Your task to perform on an android device: What's on my calendar tomorrow? Image 0: 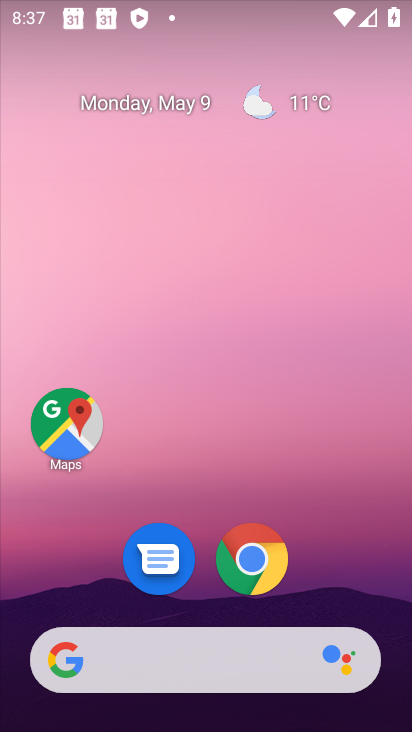
Step 0: drag from (334, 608) to (196, 182)
Your task to perform on an android device: What's on my calendar tomorrow? Image 1: 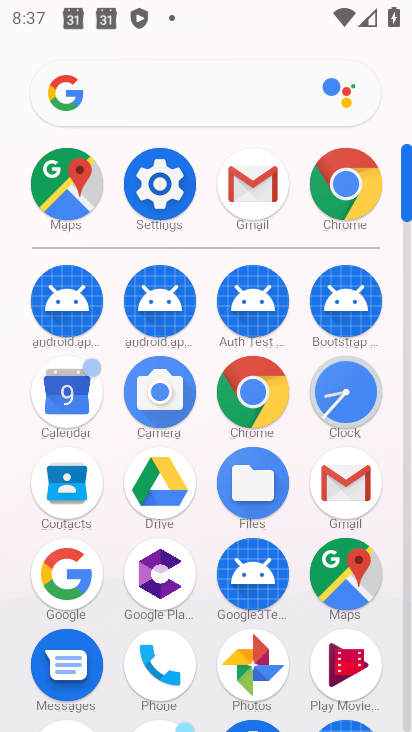
Step 1: click (211, 158)
Your task to perform on an android device: What's on my calendar tomorrow? Image 2: 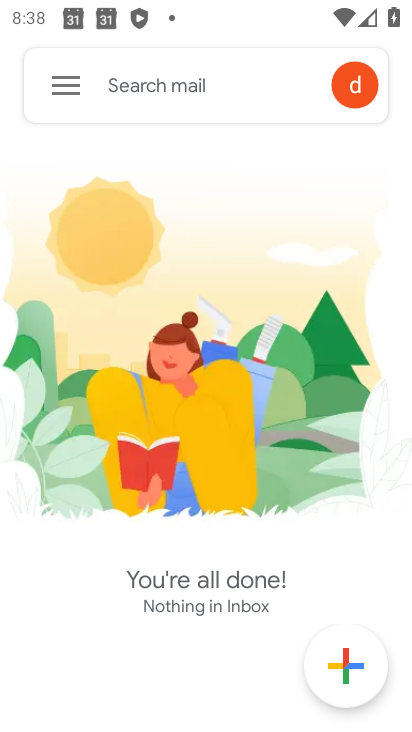
Step 2: click (69, 399)
Your task to perform on an android device: What's on my calendar tomorrow? Image 3: 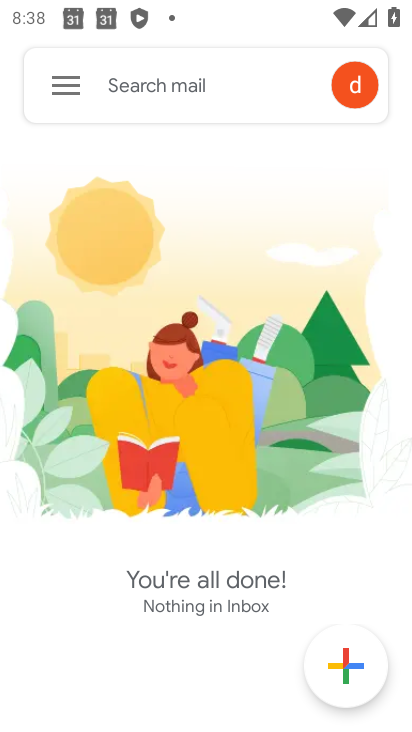
Step 3: click (64, 381)
Your task to perform on an android device: What's on my calendar tomorrow? Image 4: 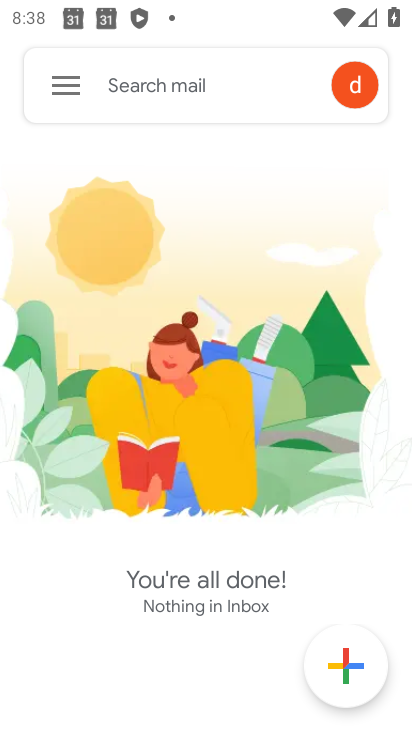
Step 4: click (64, 381)
Your task to perform on an android device: What's on my calendar tomorrow? Image 5: 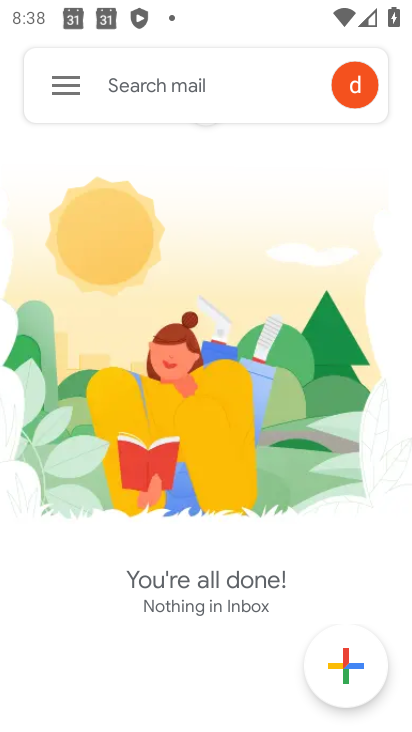
Step 5: click (74, 396)
Your task to perform on an android device: What's on my calendar tomorrow? Image 6: 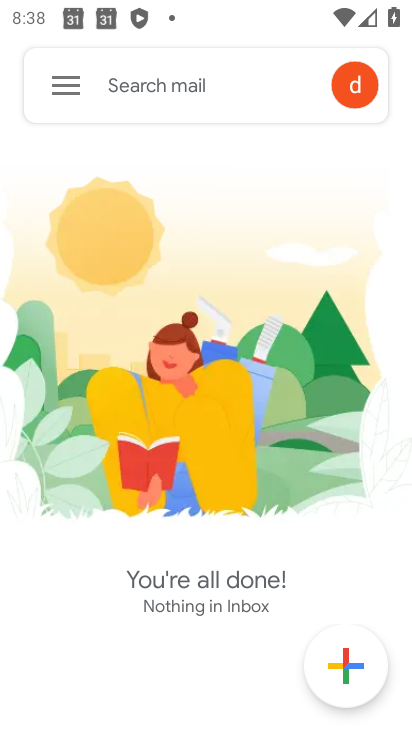
Step 6: click (74, 96)
Your task to perform on an android device: What's on my calendar tomorrow? Image 7: 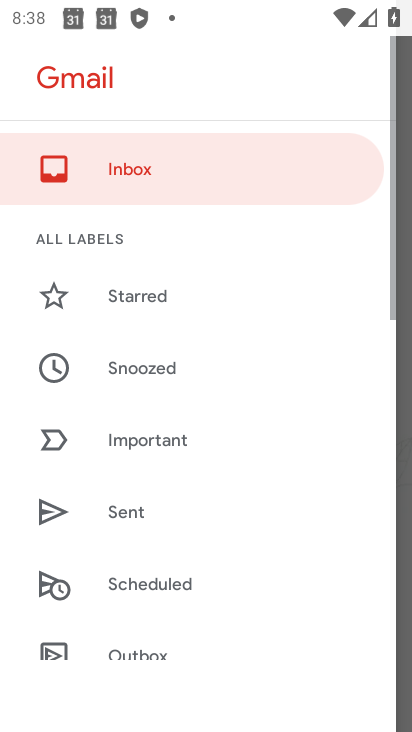
Step 7: click (74, 96)
Your task to perform on an android device: What's on my calendar tomorrow? Image 8: 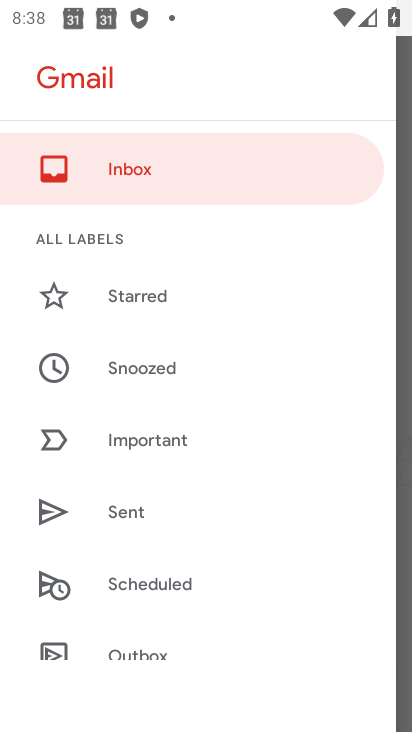
Step 8: click (71, 90)
Your task to perform on an android device: What's on my calendar tomorrow? Image 9: 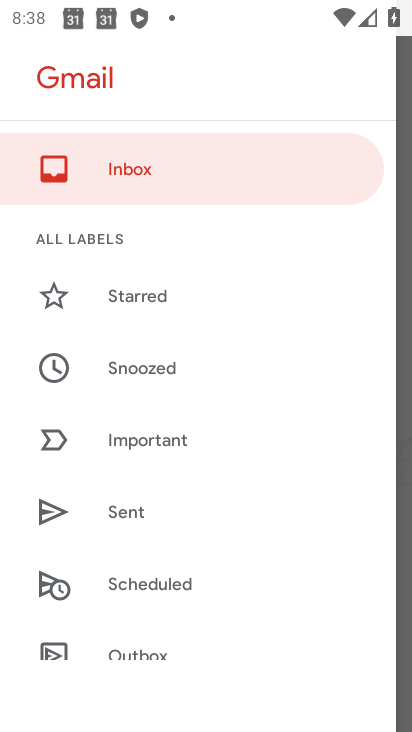
Step 9: click (66, 78)
Your task to perform on an android device: What's on my calendar tomorrow? Image 10: 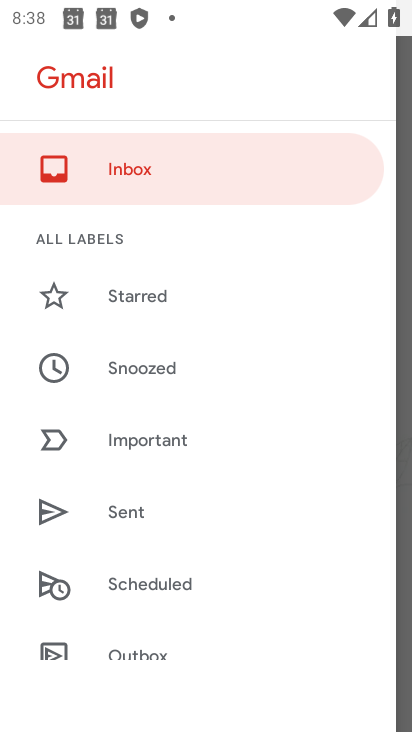
Step 10: click (70, 87)
Your task to perform on an android device: What's on my calendar tomorrow? Image 11: 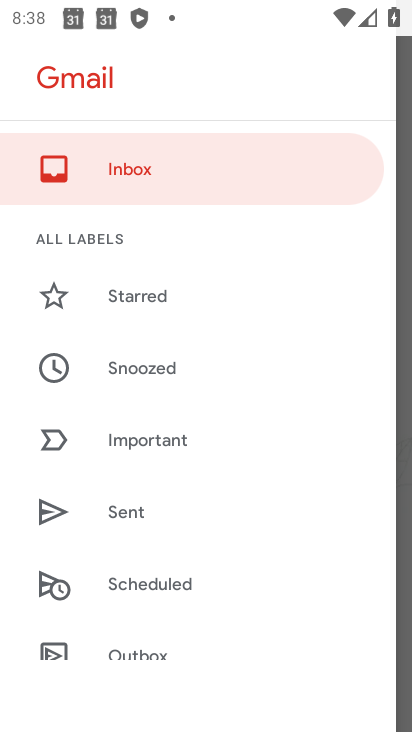
Step 11: click (64, 83)
Your task to perform on an android device: What's on my calendar tomorrow? Image 12: 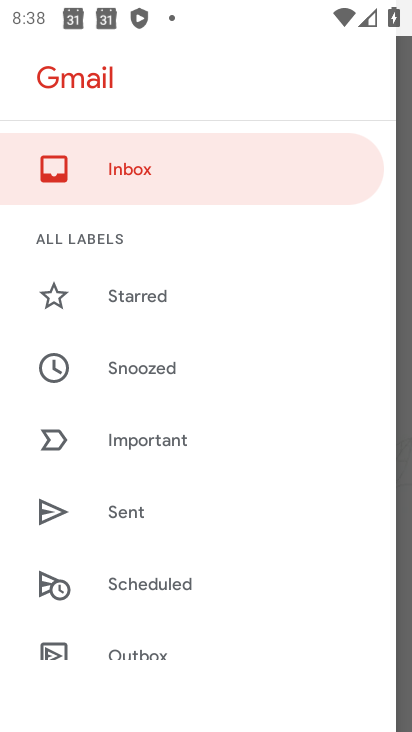
Step 12: drag from (152, 172) to (209, 161)
Your task to perform on an android device: What's on my calendar tomorrow? Image 13: 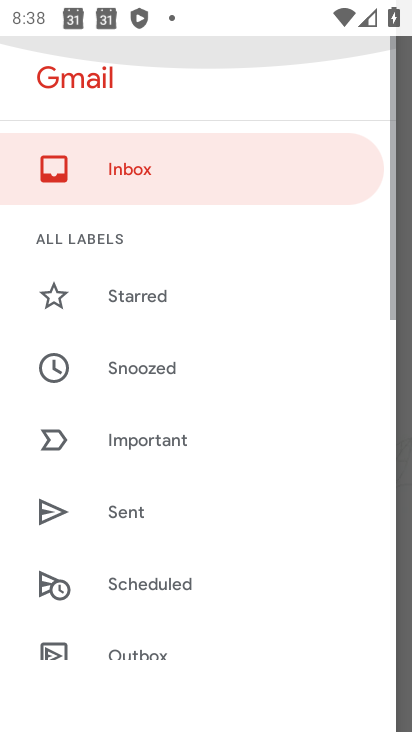
Step 13: click (231, 200)
Your task to perform on an android device: What's on my calendar tomorrow? Image 14: 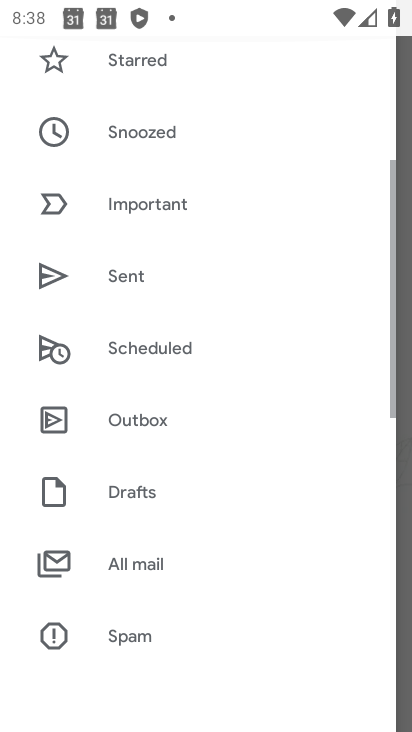
Step 14: drag from (173, 506) to (225, 160)
Your task to perform on an android device: What's on my calendar tomorrow? Image 15: 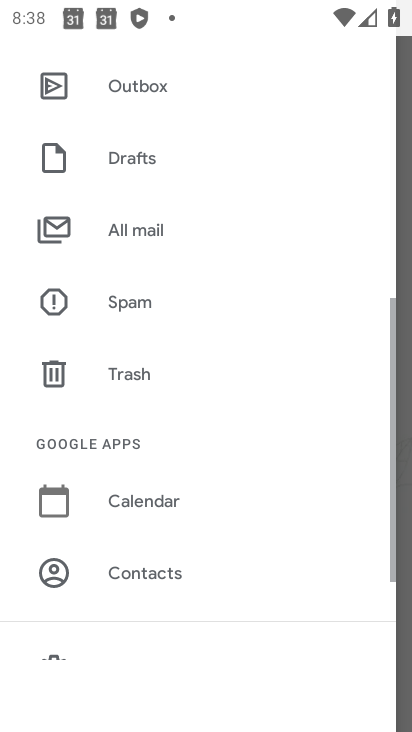
Step 15: drag from (226, 587) to (224, 140)
Your task to perform on an android device: What's on my calendar tomorrow? Image 16: 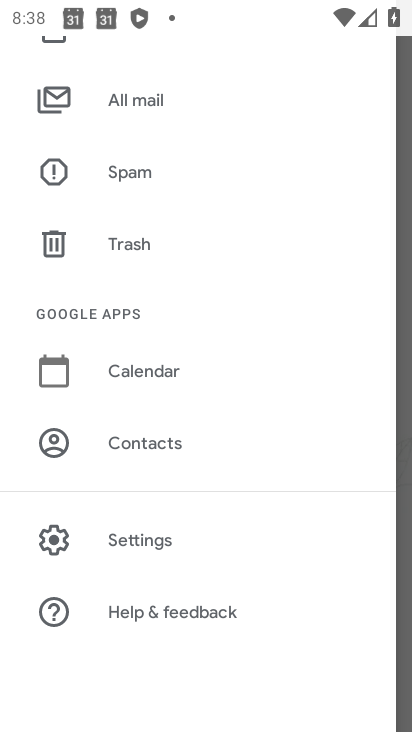
Step 16: click (133, 543)
Your task to perform on an android device: What's on my calendar tomorrow? Image 17: 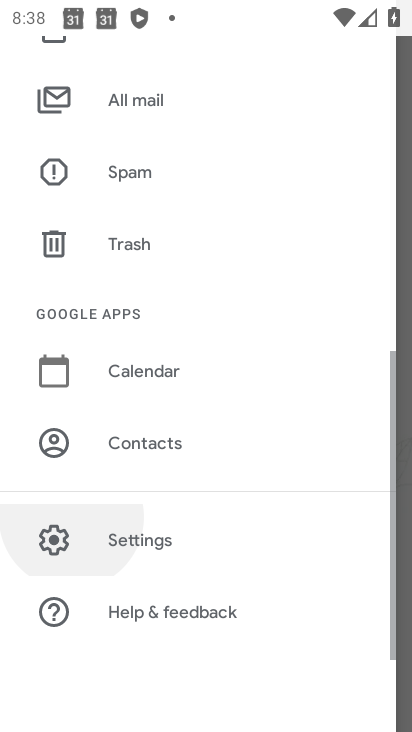
Step 17: click (133, 543)
Your task to perform on an android device: What's on my calendar tomorrow? Image 18: 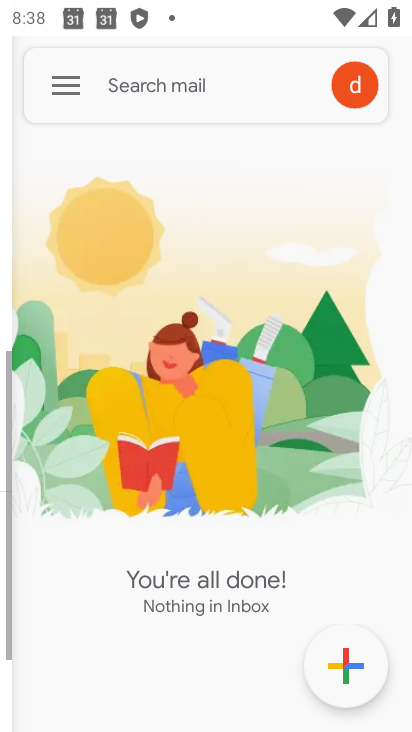
Step 18: click (133, 543)
Your task to perform on an android device: What's on my calendar tomorrow? Image 19: 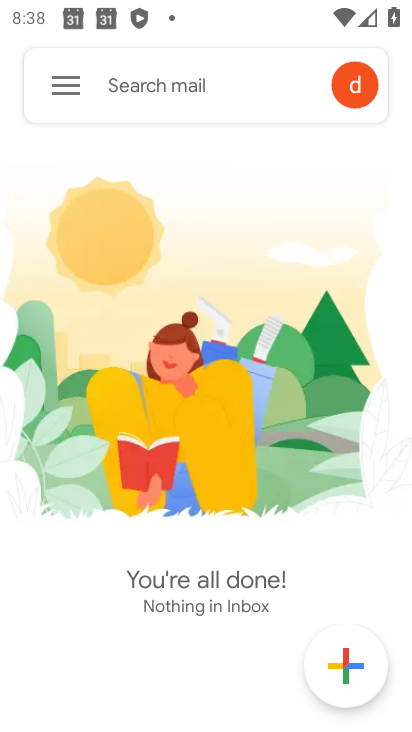
Step 19: click (134, 542)
Your task to perform on an android device: What's on my calendar tomorrow? Image 20: 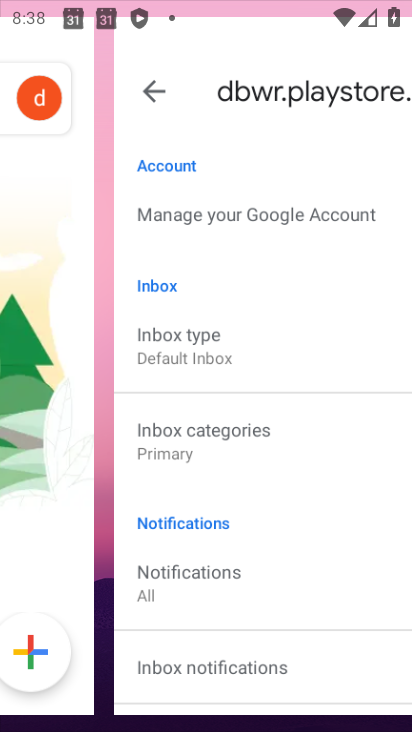
Step 20: click (134, 542)
Your task to perform on an android device: What's on my calendar tomorrow? Image 21: 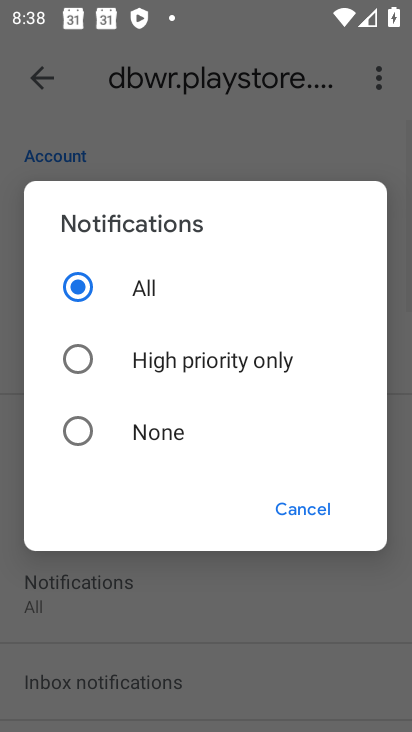
Step 21: click (289, 509)
Your task to perform on an android device: What's on my calendar tomorrow? Image 22: 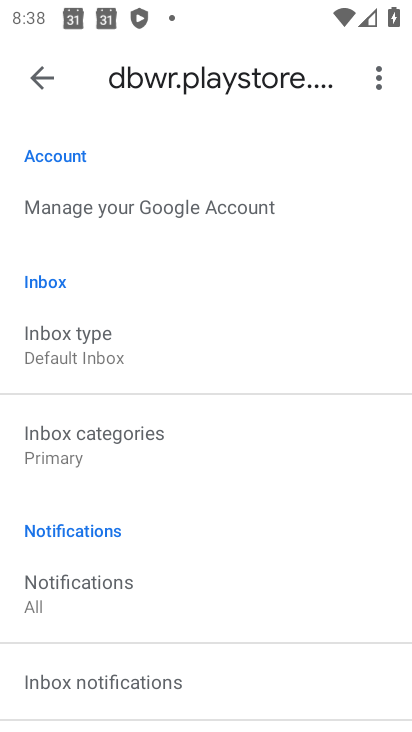
Step 22: click (46, 74)
Your task to perform on an android device: What's on my calendar tomorrow? Image 23: 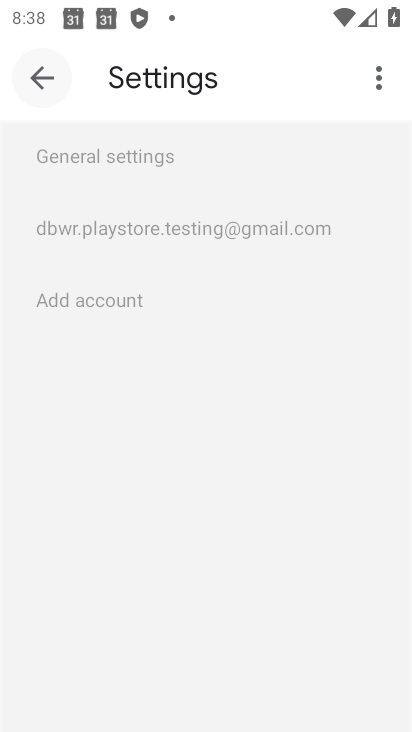
Step 23: click (46, 74)
Your task to perform on an android device: What's on my calendar tomorrow? Image 24: 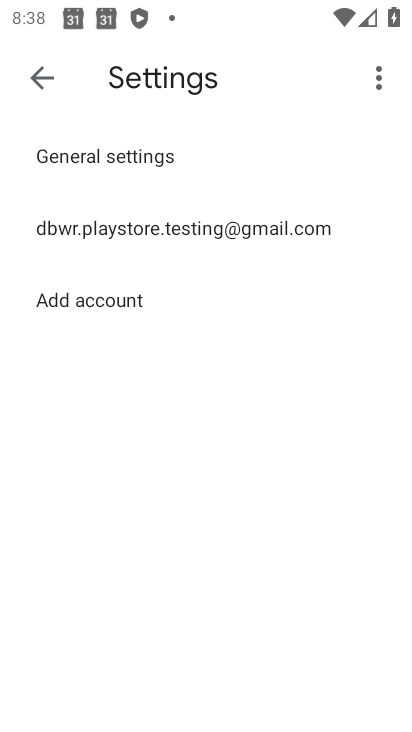
Step 24: click (46, 74)
Your task to perform on an android device: What's on my calendar tomorrow? Image 25: 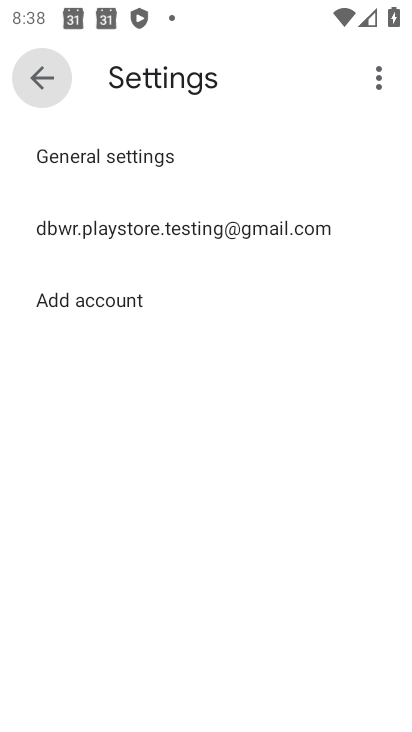
Step 25: click (46, 74)
Your task to perform on an android device: What's on my calendar tomorrow? Image 26: 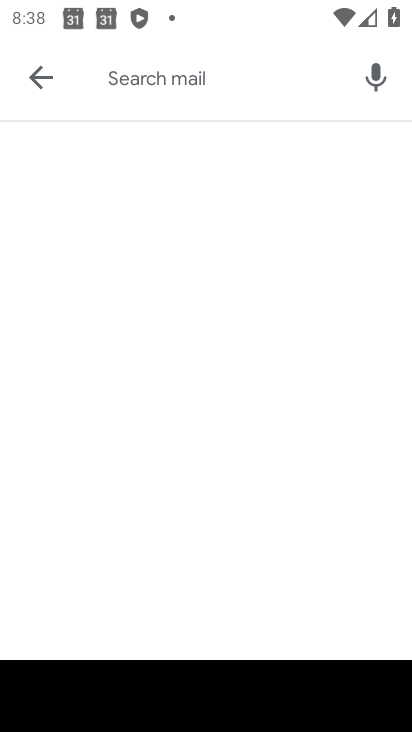
Step 26: click (39, 94)
Your task to perform on an android device: What's on my calendar tomorrow? Image 27: 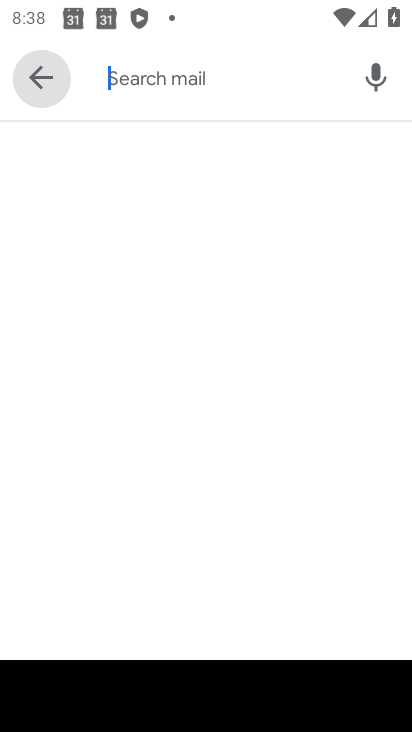
Step 27: click (39, 94)
Your task to perform on an android device: What's on my calendar tomorrow? Image 28: 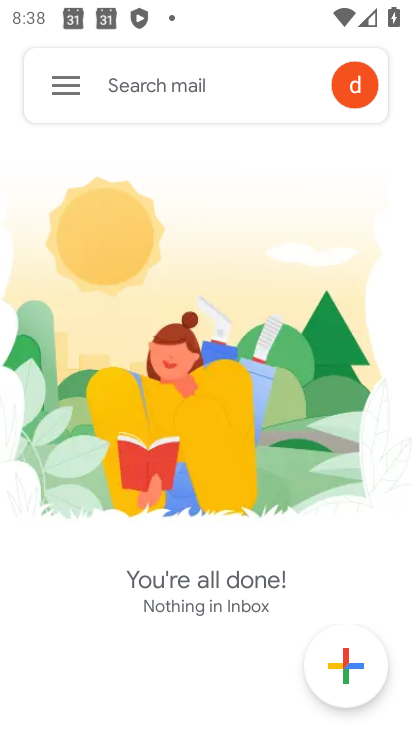
Step 28: press back button
Your task to perform on an android device: What's on my calendar tomorrow? Image 29: 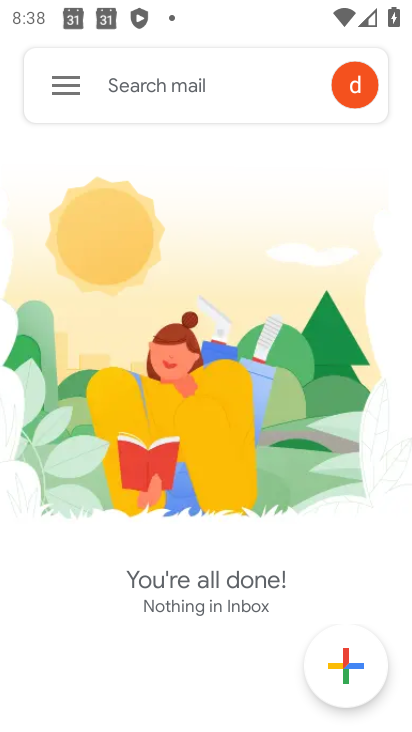
Step 29: press back button
Your task to perform on an android device: What's on my calendar tomorrow? Image 30: 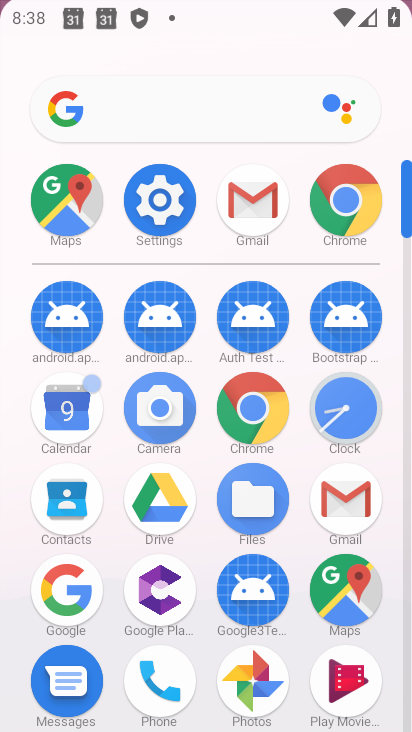
Step 30: press back button
Your task to perform on an android device: What's on my calendar tomorrow? Image 31: 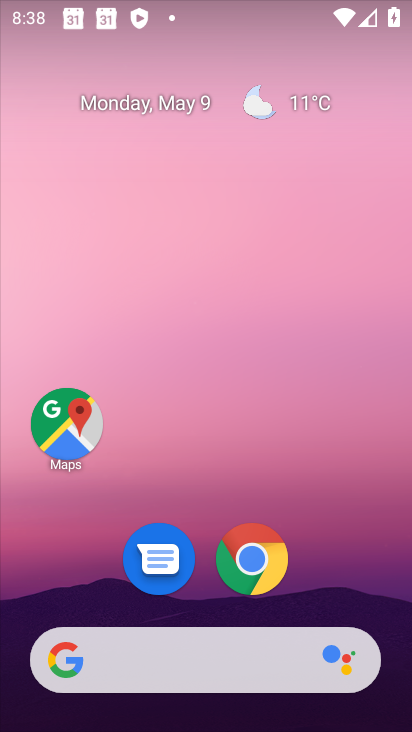
Step 31: press back button
Your task to perform on an android device: What's on my calendar tomorrow? Image 32: 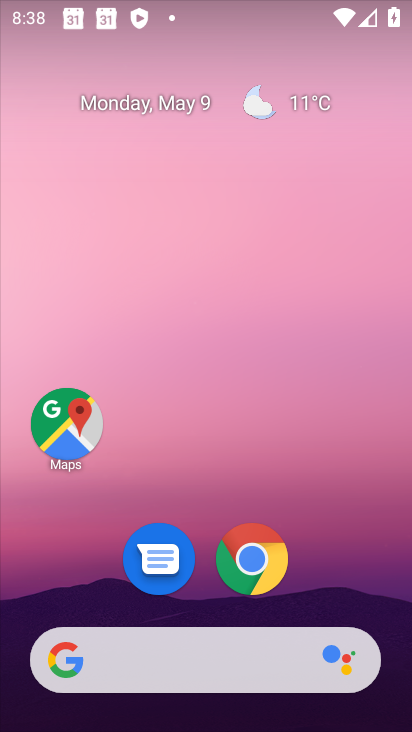
Step 32: drag from (268, 601) to (128, 38)
Your task to perform on an android device: What's on my calendar tomorrow? Image 33: 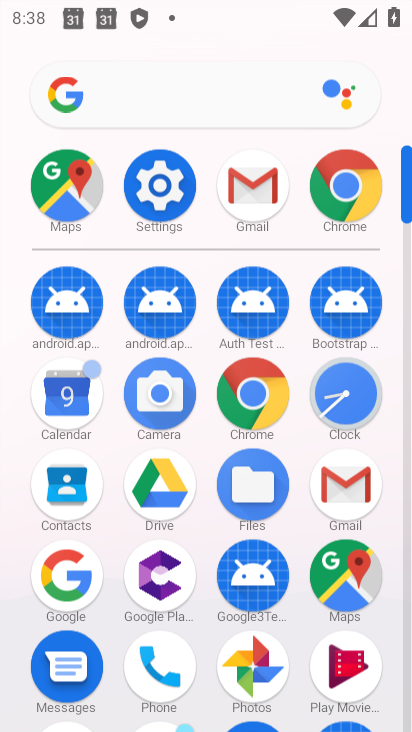
Step 33: drag from (317, 584) to (223, 5)
Your task to perform on an android device: What's on my calendar tomorrow? Image 34: 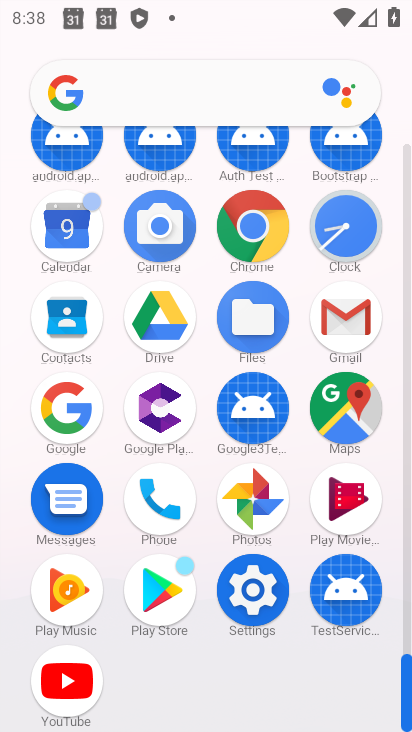
Step 34: click (61, 222)
Your task to perform on an android device: What's on my calendar tomorrow? Image 35: 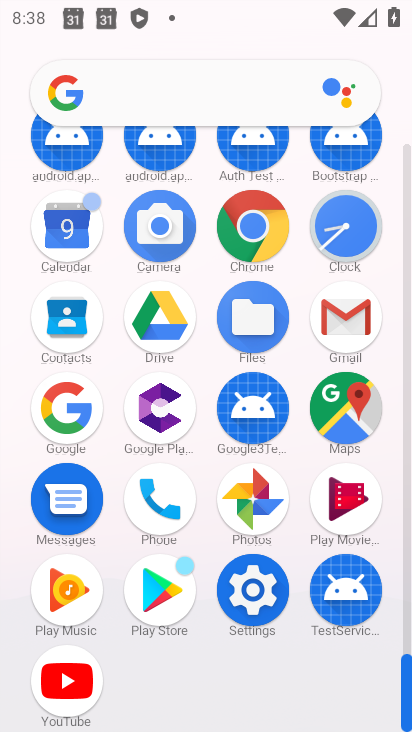
Step 35: click (73, 227)
Your task to perform on an android device: What's on my calendar tomorrow? Image 36: 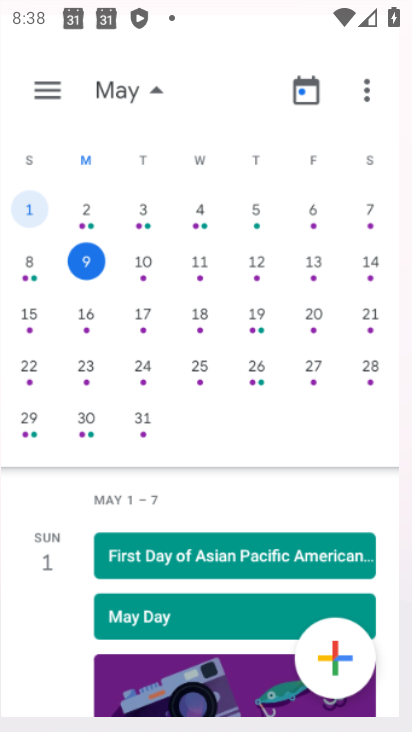
Step 36: click (74, 228)
Your task to perform on an android device: What's on my calendar tomorrow? Image 37: 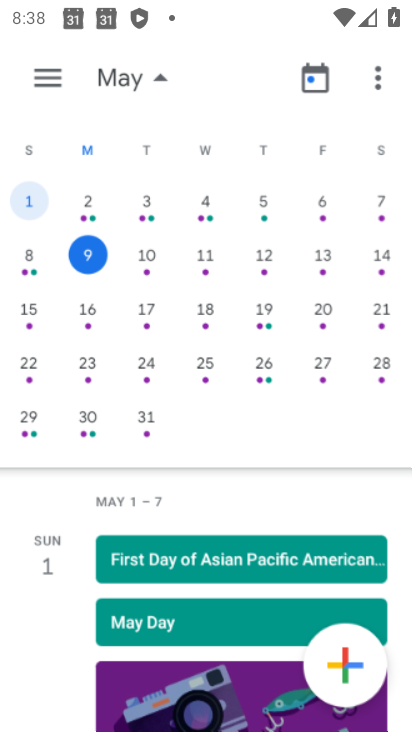
Step 37: click (74, 228)
Your task to perform on an android device: What's on my calendar tomorrow? Image 38: 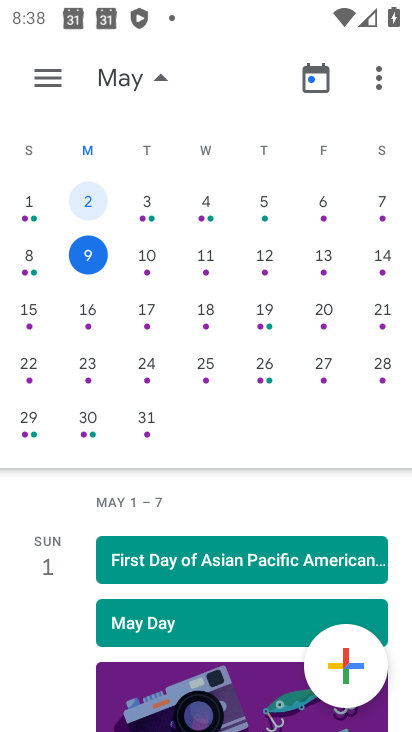
Step 38: click (74, 228)
Your task to perform on an android device: What's on my calendar tomorrow? Image 39: 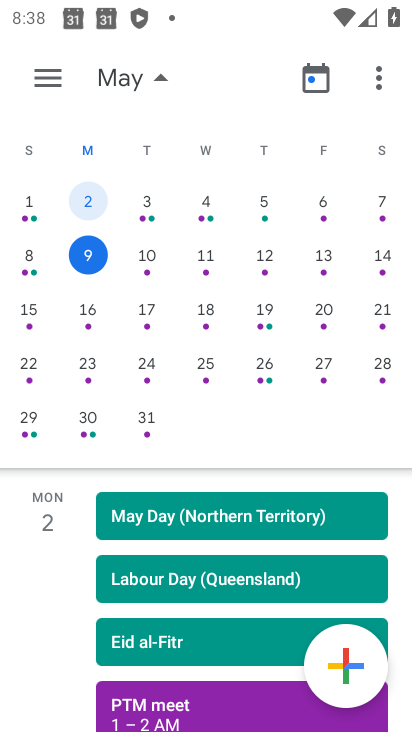
Step 39: task complete